Your task to perform on an android device: Search for seafood restaurants on Google Maps Image 0: 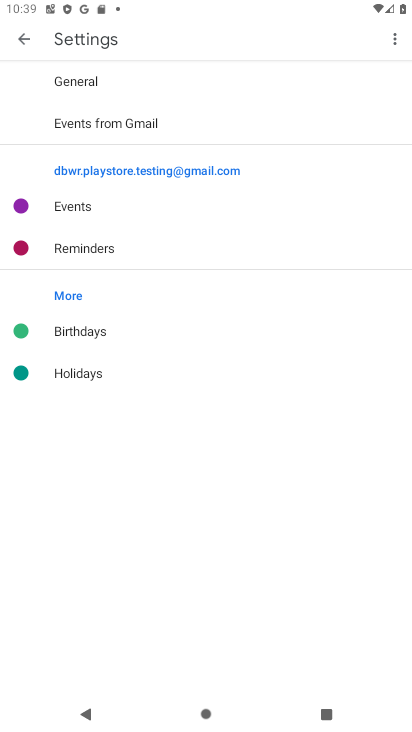
Step 0: press home button
Your task to perform on an android device: Search for seafood restaurants on Google Maps Image 1: 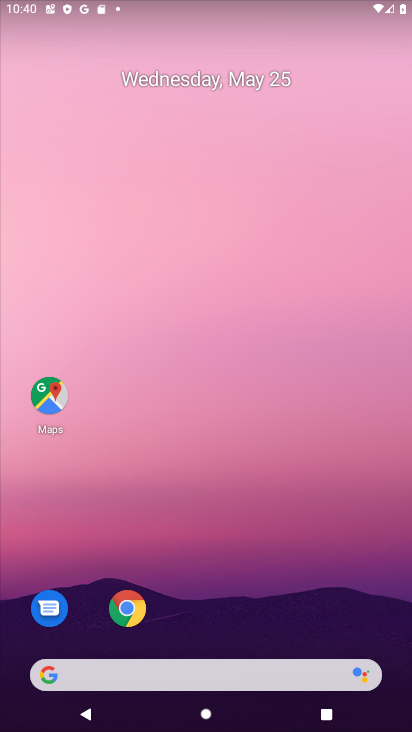
Step 1: click (42, 398)
Your task to perform on an android device: Search for seafood restaurants on Google Maps Image 2: 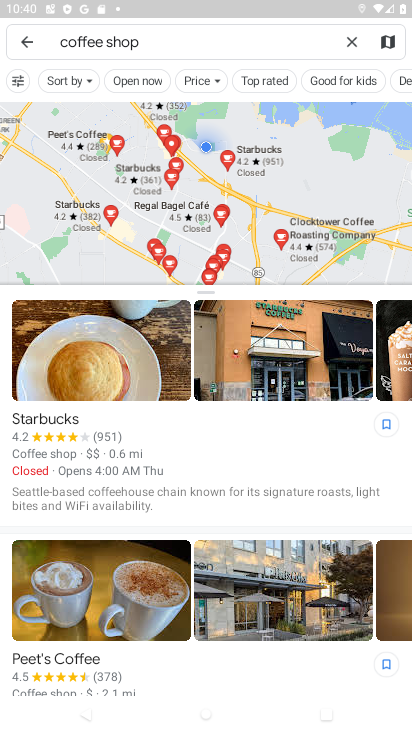
Step 2: click (348, 36)
Your task to perform on an android device: Search for seafood restaurants on Google Maps Image 3: 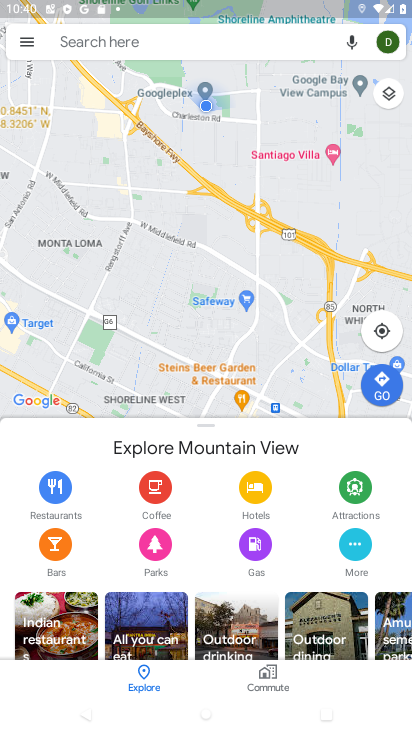
Step 3: click (92, 39)
Your task to perform on an android device: Search for seafood restaurants on Google Maps Image 4: 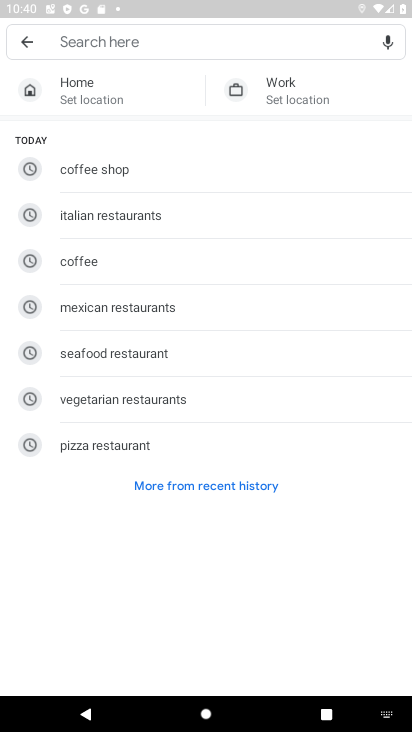
Step 4: type "seafood restaurant"
Your task to perform on an android device: Search for seafood restaurants on Google Maps Image 5: 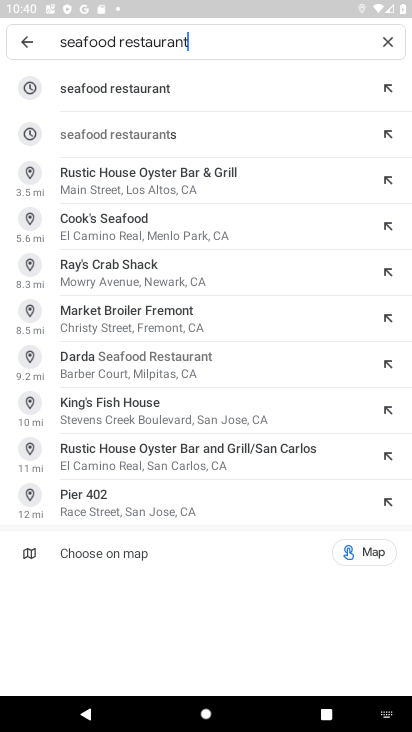
Step 5: click (172, 88)
Your task to perform on an android device: Search for seafood restaurants on Google Maps Image 6: 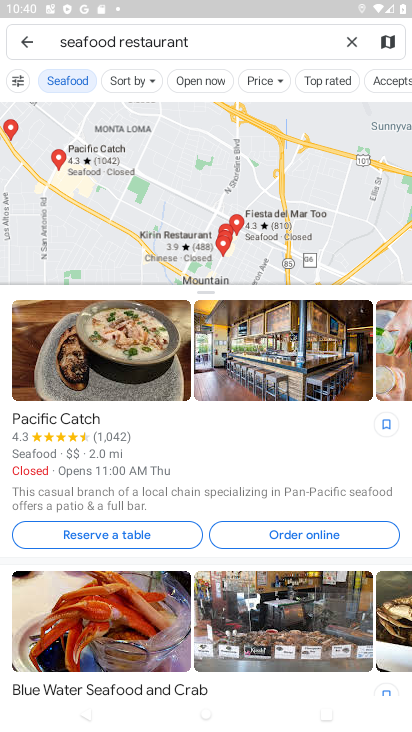
Step 6: task complete